Your task to perform on an android device: turn off location history Image 0: 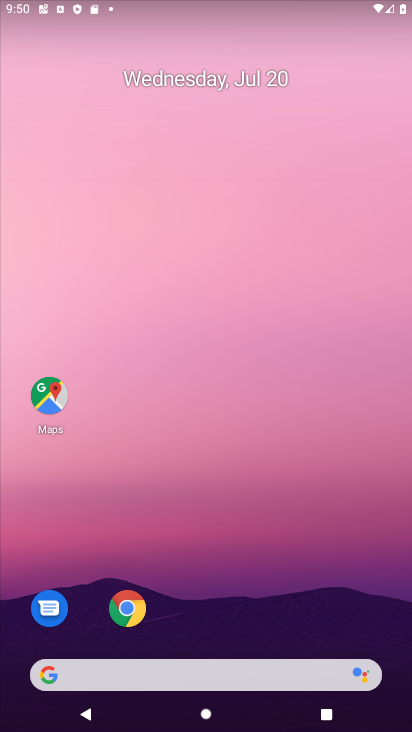
Step 0: drag from (259, 604) to (254, 158)
Your task to perform on an android device: turn off location history Image 1: 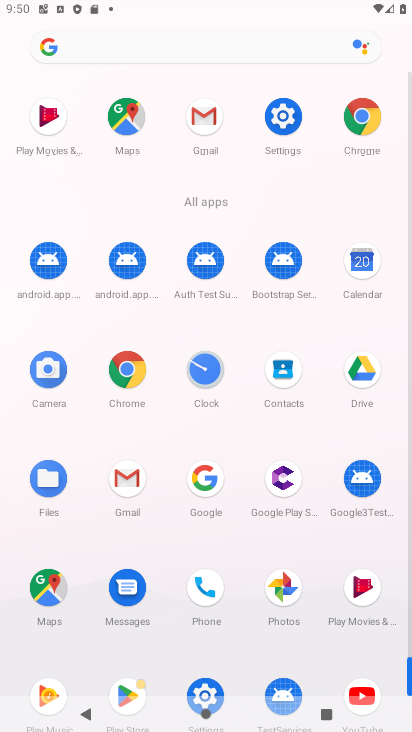
Step 1: click (204, 687)
Your task to perform on an android device: turn off location history Image 2: 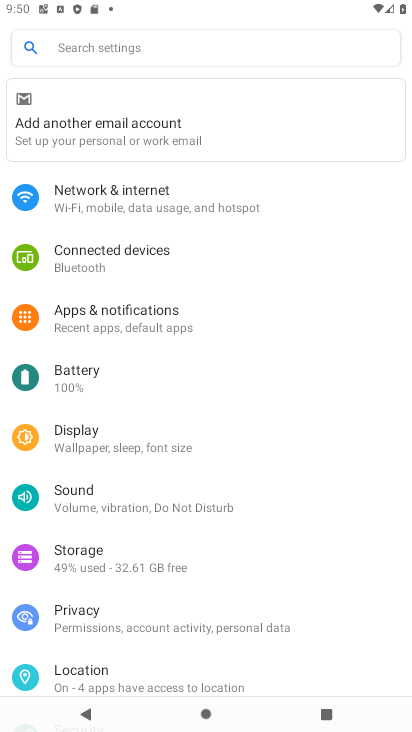
Step 2: click (127, 674)
Your task to perform on an android device: turn off location history Image 3: 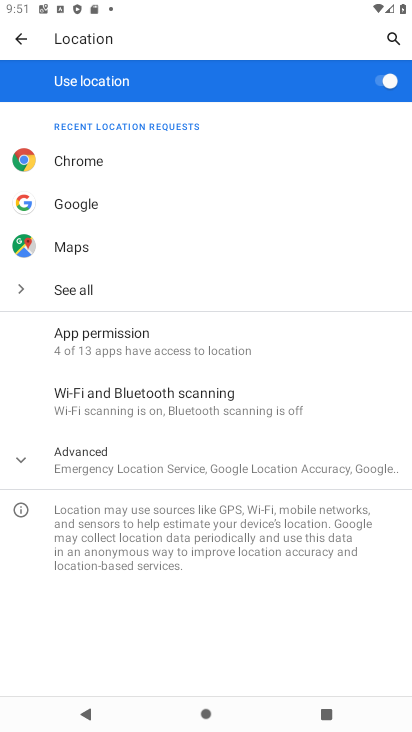
Step 3: click (376, 86)
Your task to perform on an android device: turn off location history Image 4: 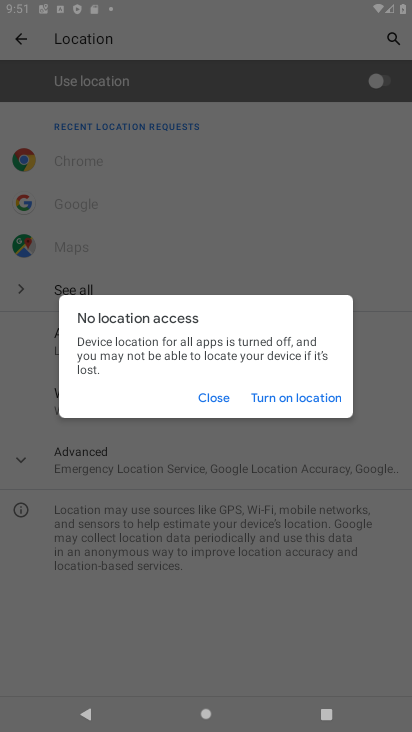
Step 4: task complete